Your task to perform on an android device: change the clock display to analog Image 0: 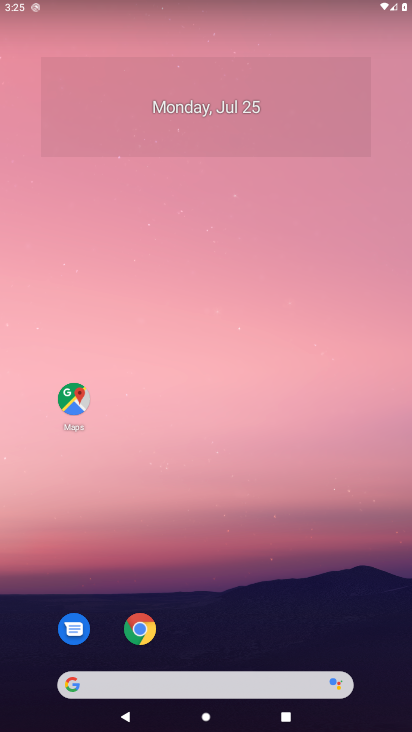
Step 0: click (73, 394)
Your task to perform on an android device: change the clock display to analog Image 1: 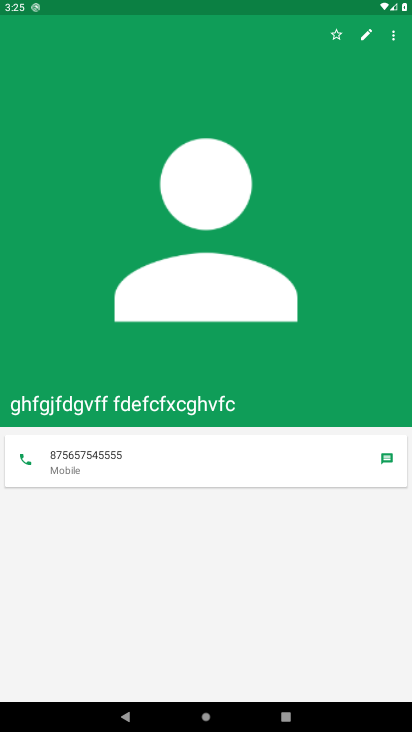
Step 1: press home button
Your task to perform on an android device: change the clock display to analog Image 2: 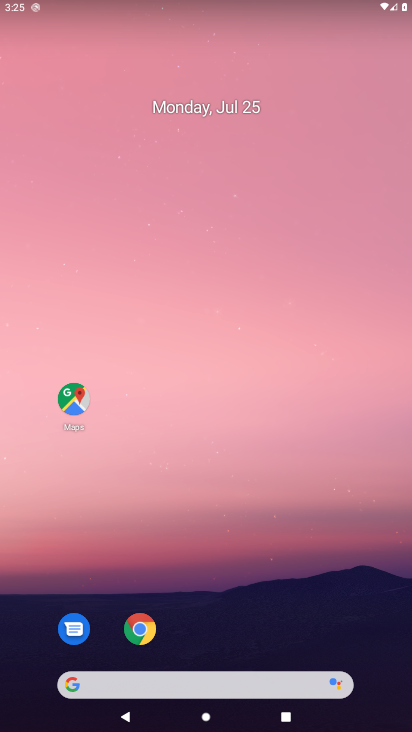
Step 2: drag from (26, 697) to (156, 138)
Your task to perform on an android device: change the clock display to analog Image 3: 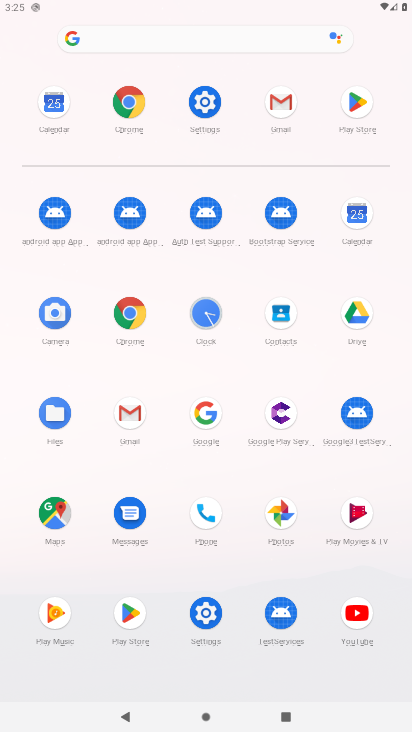
Step 3: click (212, 323)
Your task to perform on an android device: change the clock display to analog Image 4: 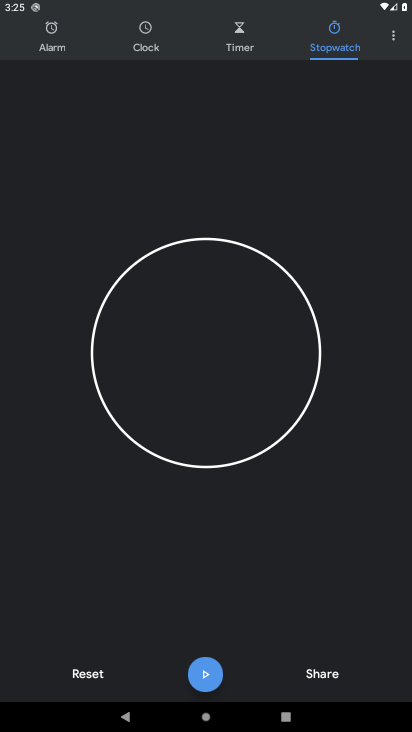
Step 4: click (389, 33)
Your task to perform on an android device: change the clock display to analog Image 5: 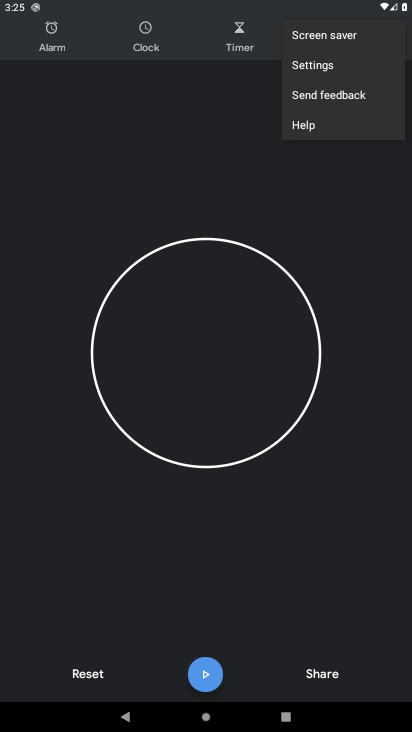
Step 5: click (312, 66)
Your task to perform on an android device: change the clock display to analog Image 6: 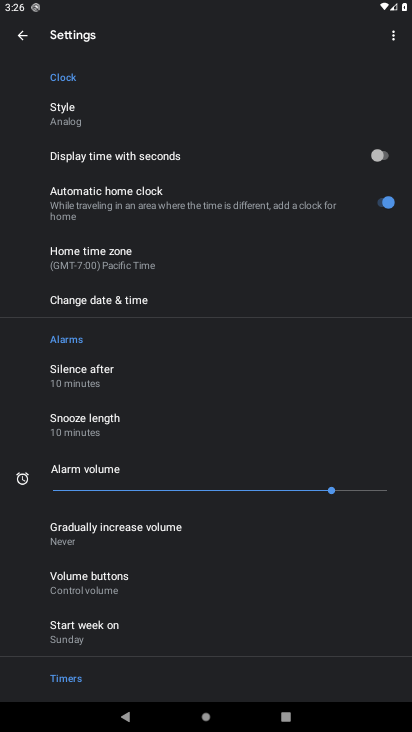
Step 6: task complete